Your task to perform on an android device: set default search engine in the chrome app Image 0: 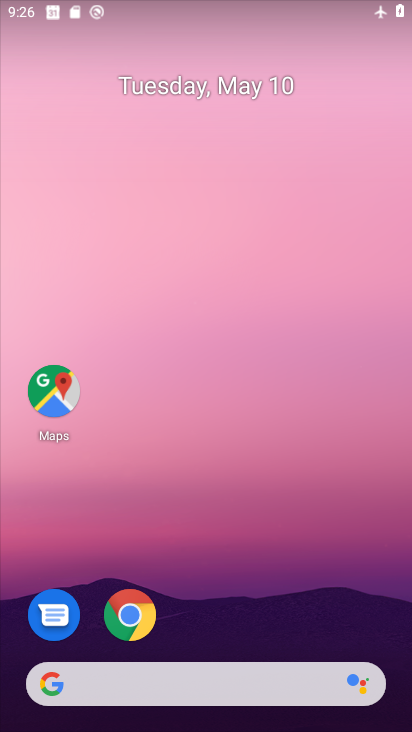
Step 0: drag from (220, 598) to (211, 181)
Your task to perform on an android device: set default search engine in the chrome app Image 1: 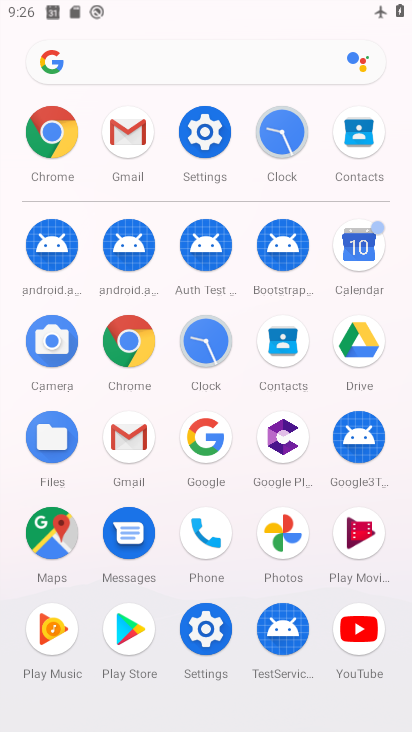
Step 1: click (131, 344)
Your task to perform on an android device: set default search engine in the chrome app Image 2: 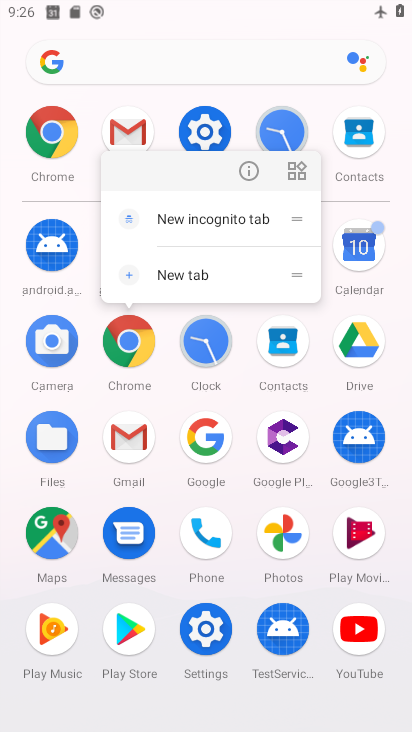
Step 2: click (222, 179)
Your task to perform on an android device: set default search engine in the chrome app Image 3: 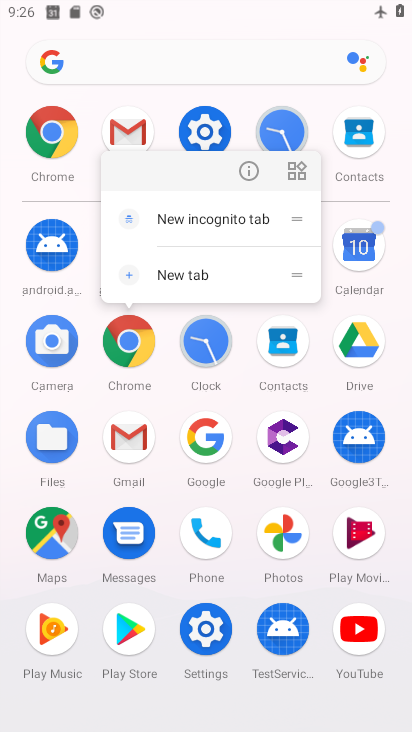
Step 3: click (222, 179)
Your task to perform on an android device: set default search engine in the chrome app Image 4: 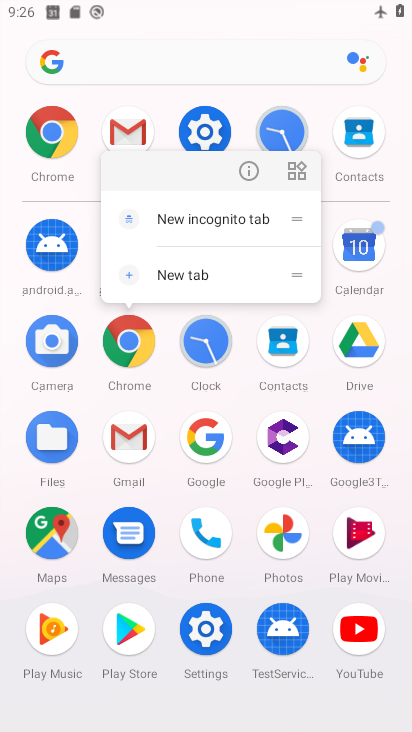
Step 4: click (240, 175)
Your task to perform on an android device: set default search engine in the chrome app Image 5: 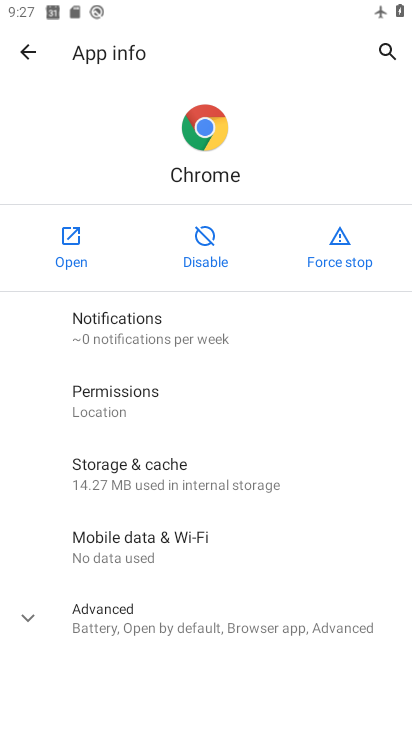
Step 5: click (54, 257)
Your task to perform on an android device: set default search engine in the chrome app Image 6: 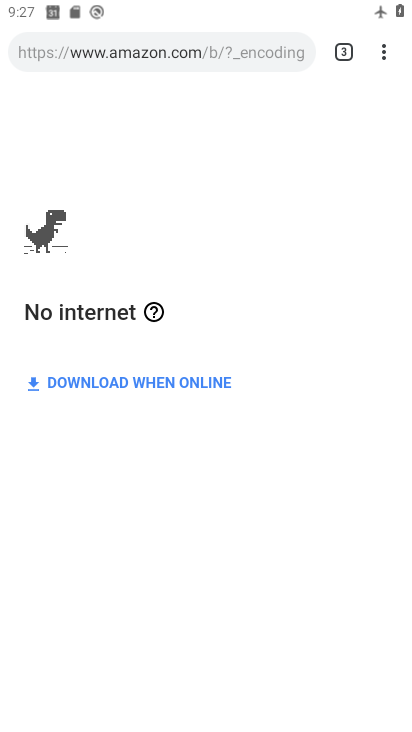
Step 6: click (385, 55)
Your task to perform on an android device: set default search engine in the chrome app Image 7: 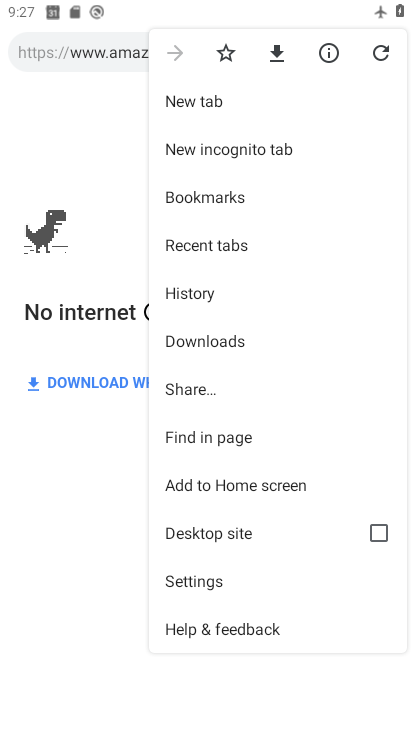
Step 7: click (198, 551)
Your task to perform on an android device: set default search engine in the chrome app Image 8: 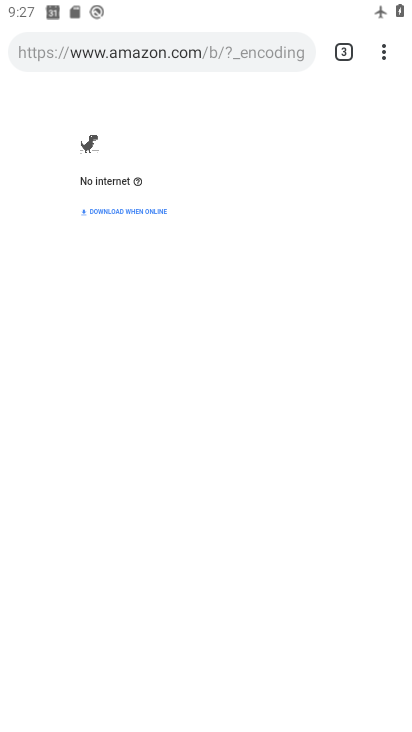
Step 8: click (388, 47)
Your task to perform on an android device: set default search engine in the chrome app Image 9: 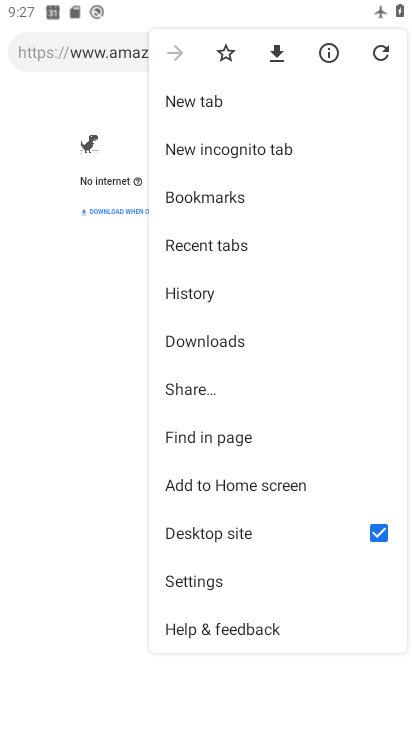
Step 9: click (378, 540)
Your task to perform on an android device: set default search engine in the chrome app Image 10: 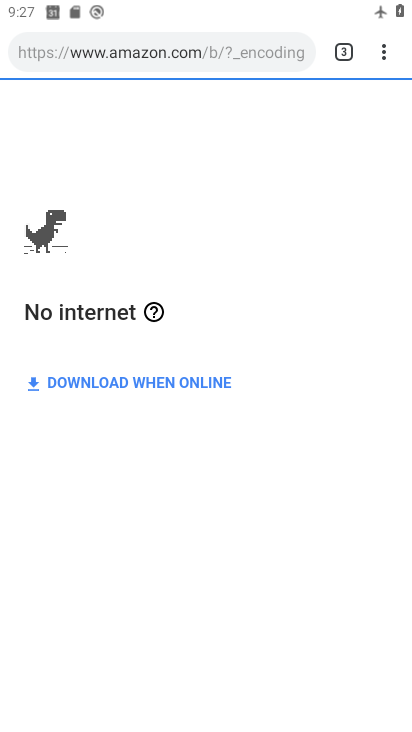
Step 10: click (218, 585)
Your task to perform on an android device: set default search engine in the chrome app Image 11: 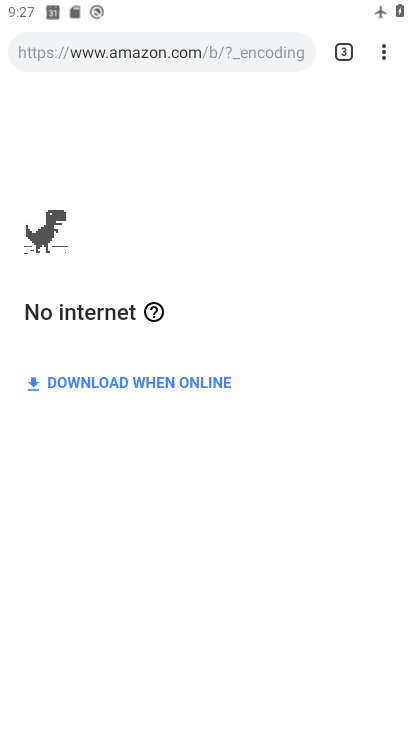
Step 11: click (403, 44)
Your task to perform on an android device: set default search engine in the chrome app Image 12: 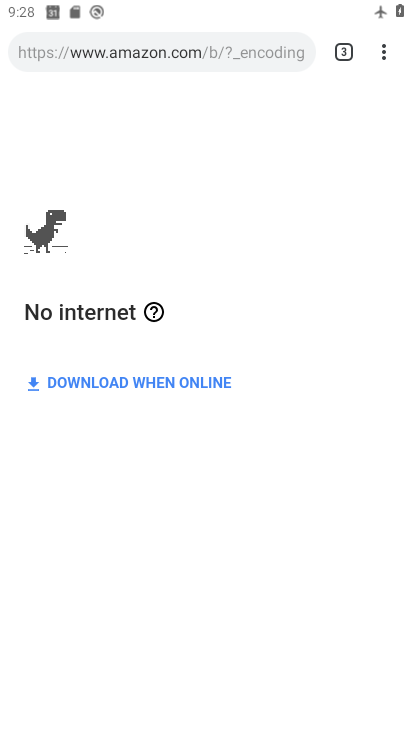
Step 12: click (377, 67)
Your task to perform on an android device: set default search engine in the chrome app Image 13: 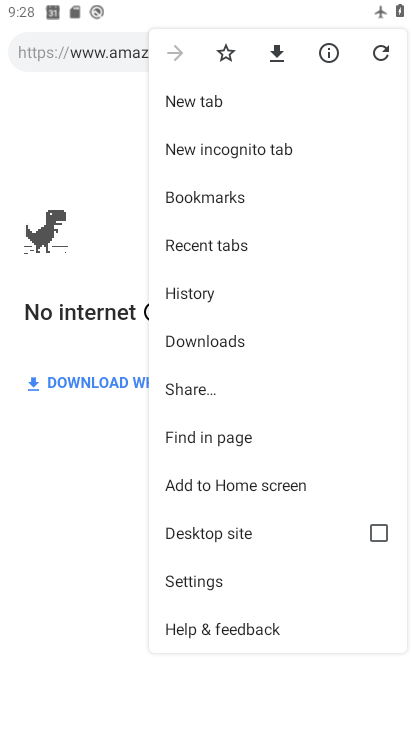
Step 13: click (217, 585)
Your task to perform on an android device: set default search engine in the chrome app Image 14: 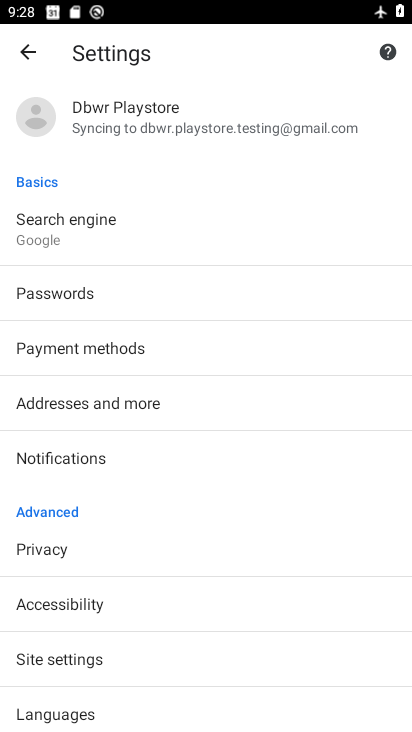
Step 14: click (93, 657)
Your task to perform on an android device: set default search engine in the chrome app Image 15: 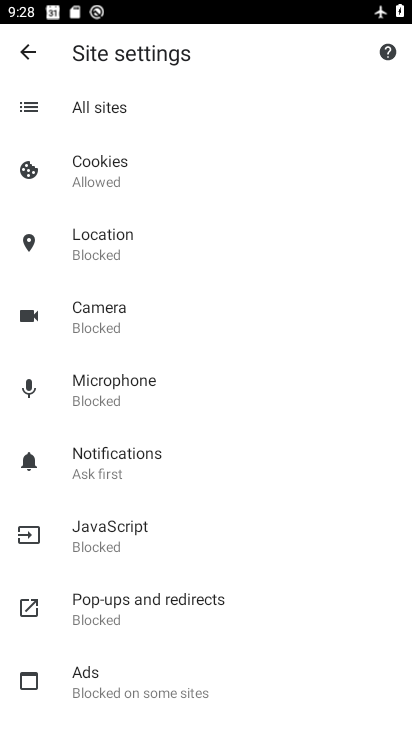
Step 15: click (11, 54)
Your task to perform on an android device: set default search engine in the chrome app Image 16: 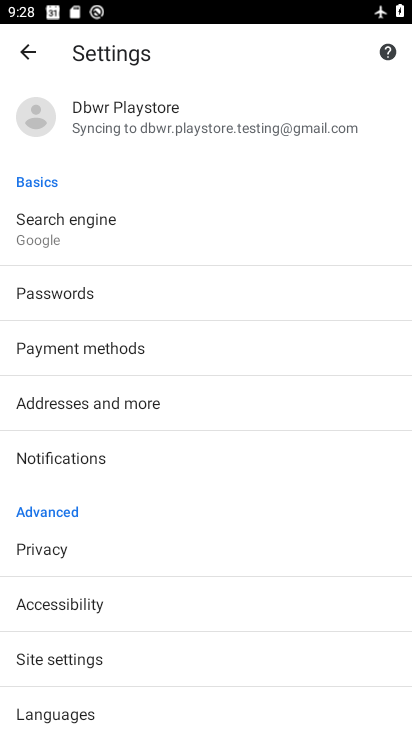
Step 16: click (119, 207)
Your task to perform on an android device: set default search engine in the chrome app Image 17: 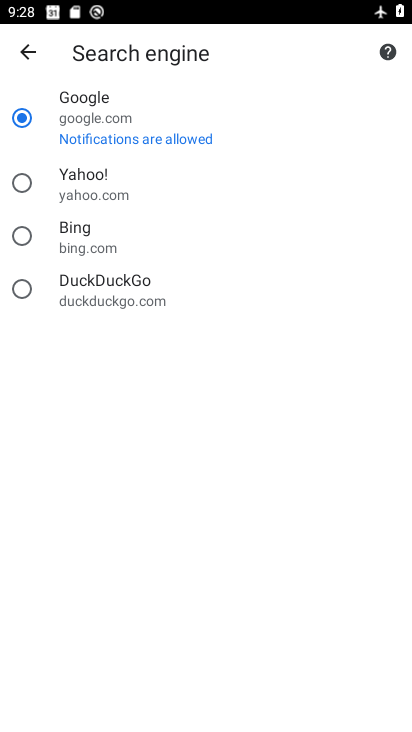
Step 17: click (146, 120)
Your task to perform on an android device: set default search engine in the chrome app Image 18: 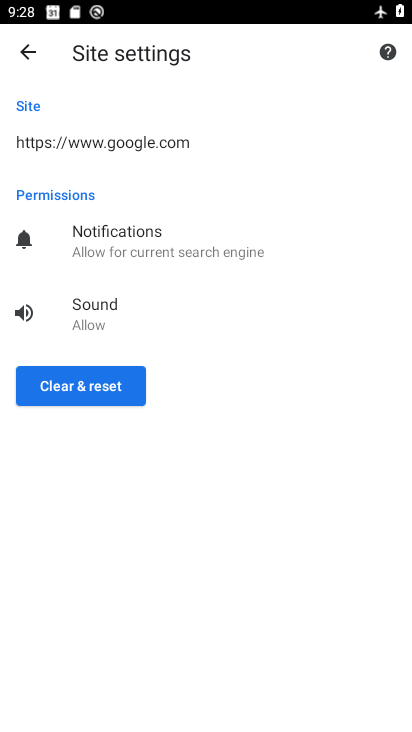
Step 18: task complete